Your task to perform on an android device: Open battery settings Image 0: 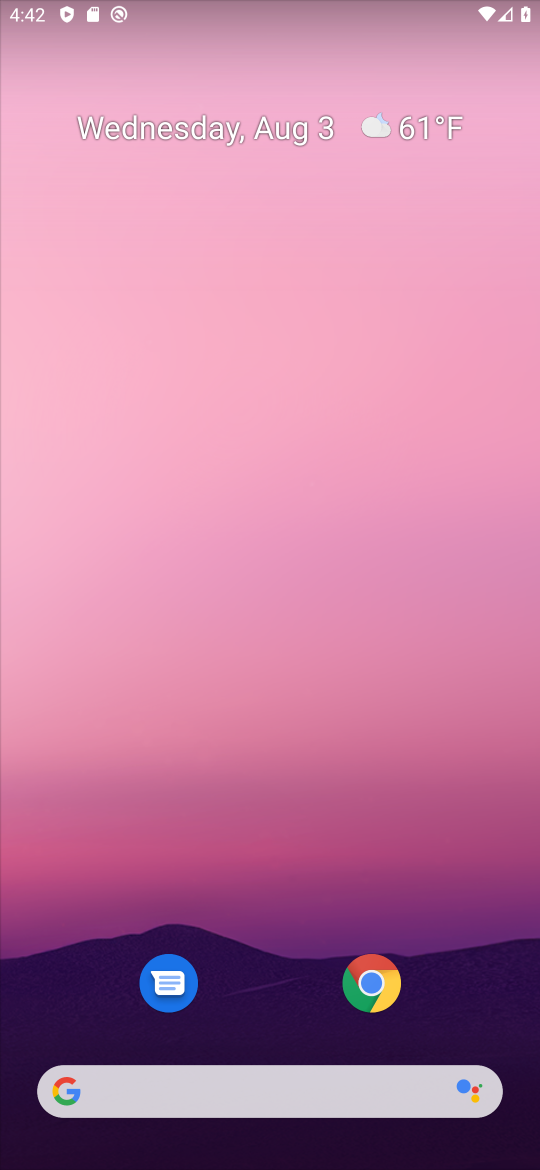
Step 0: press home button
Your task to perform on an android device: Open battery settings Image 1: 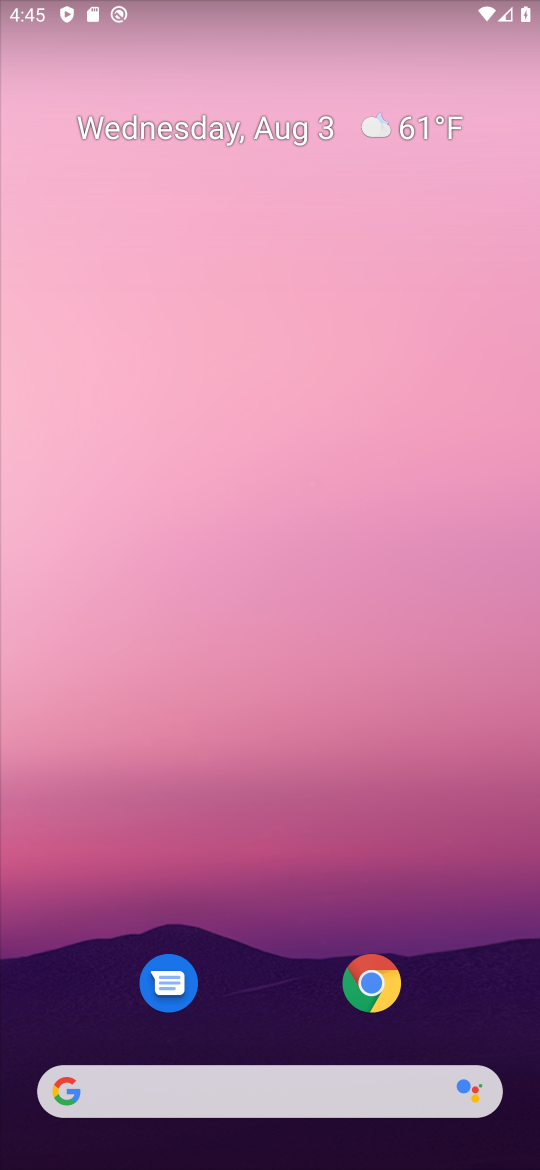
Step 1: click (287, 1035)
Your task to perform on an android device: Open battery settings Image 2: 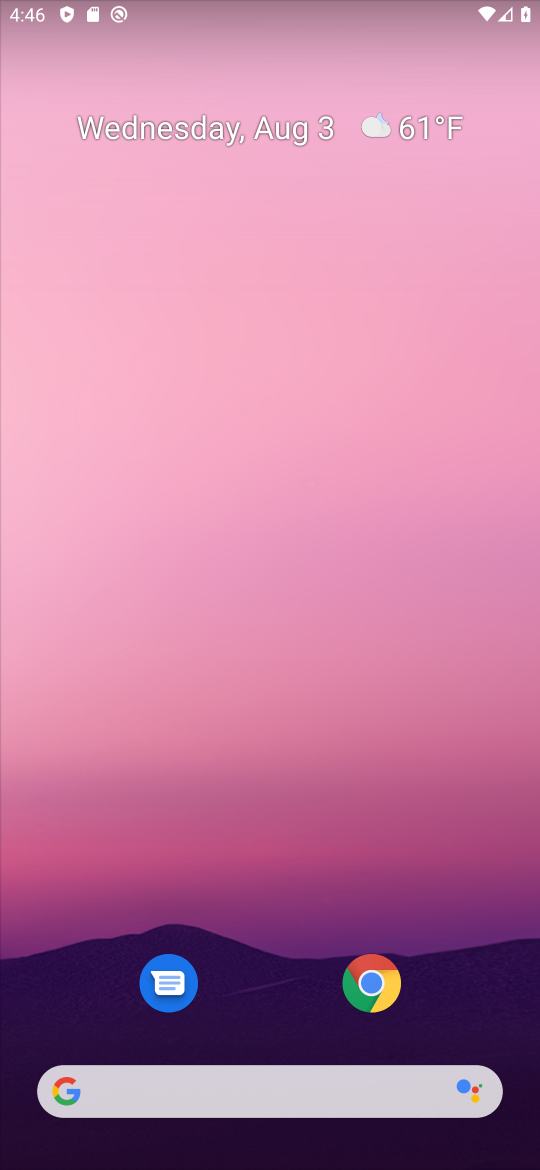
Step 2: drag from (276, 1025) to (485, 270)
Your task to perform on an android device: Open battery settings Image 3: 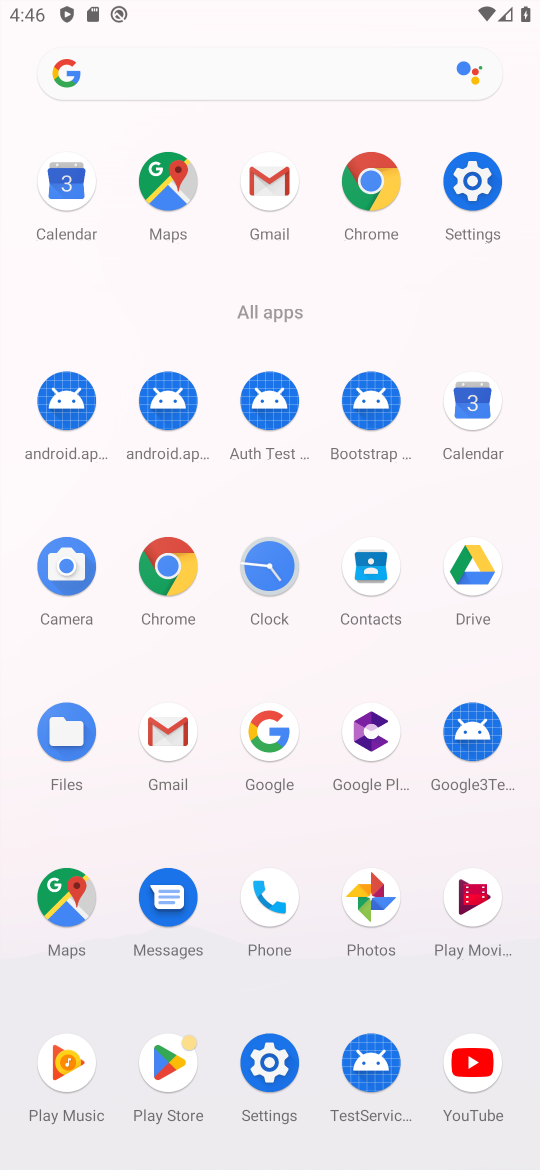
Step 3: click (476, 184)
Your task to perform on an android device: Open battery settings Image 4: 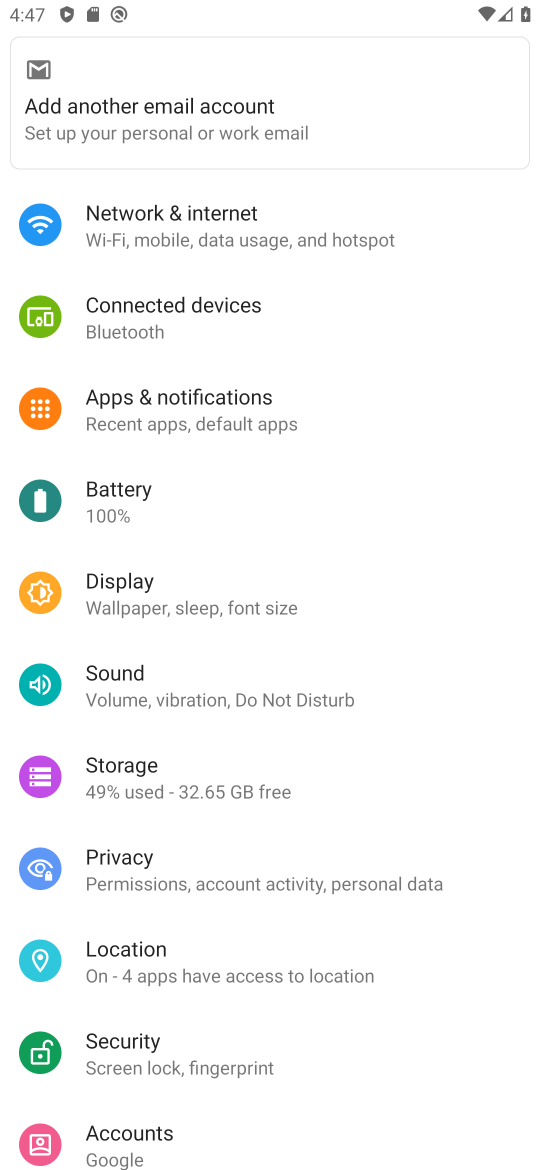
Step 4: click (108, 504)
Your task to perform on an android device: Open battery settings Image 5: 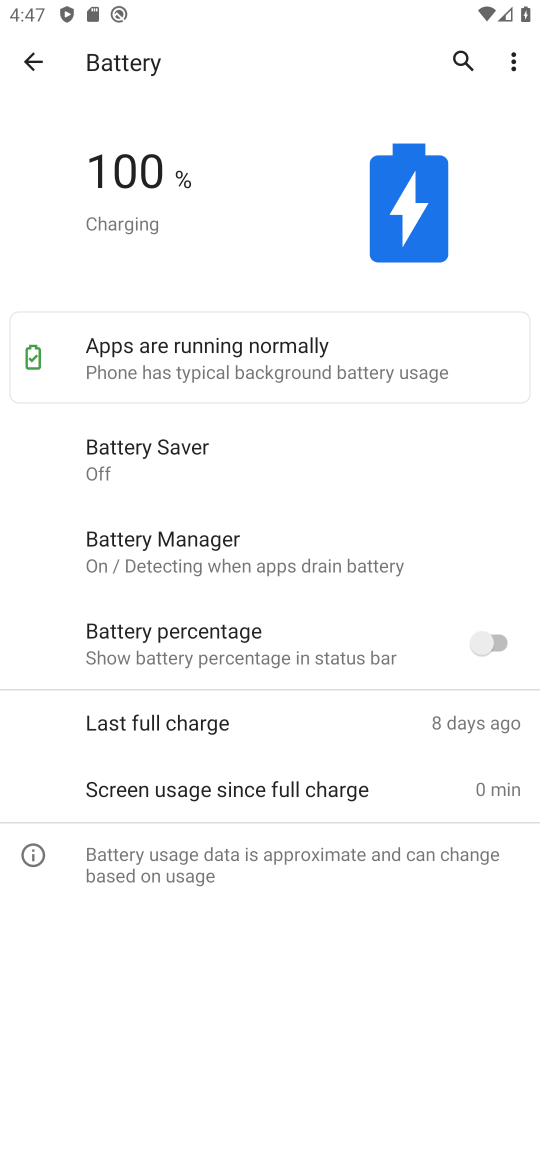
Step 5: task complete